Your task to perform on an android device: Open the Play Movies app and select the watchlist tab. Image 0: 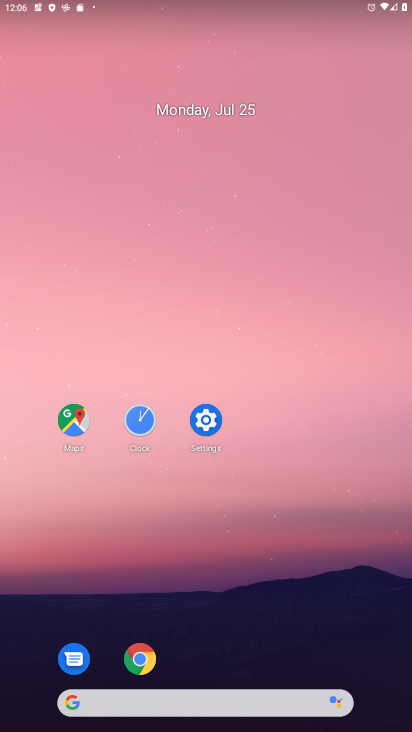
Step 0: drag from (383, 608) to (354, 38)
Your task to perform on an android device: Open the Play Movies app and select the watchlist tab. Image 1: 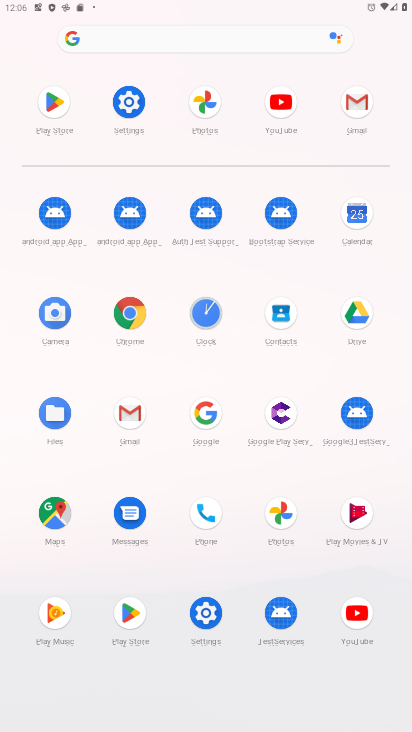
Step 1: click (356, 506)
Your task to perform on an android device: Open the Play Movies app and select the watchlist tab. Image 2: 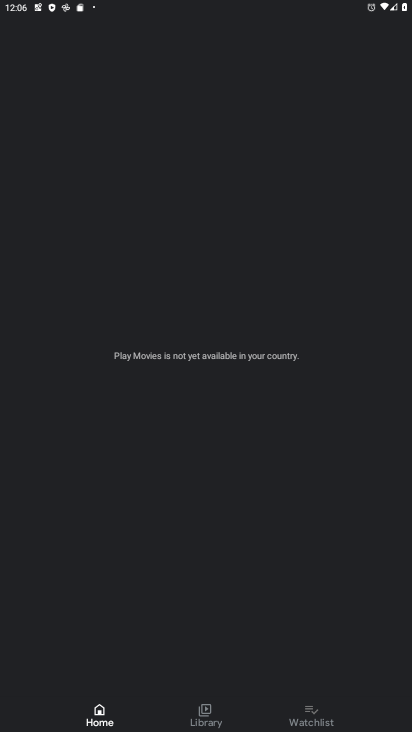
Step 2: click (295, 711)
Your task to perform on an android device: Open the Play Movies app and select the watchlist tab. Image 3: 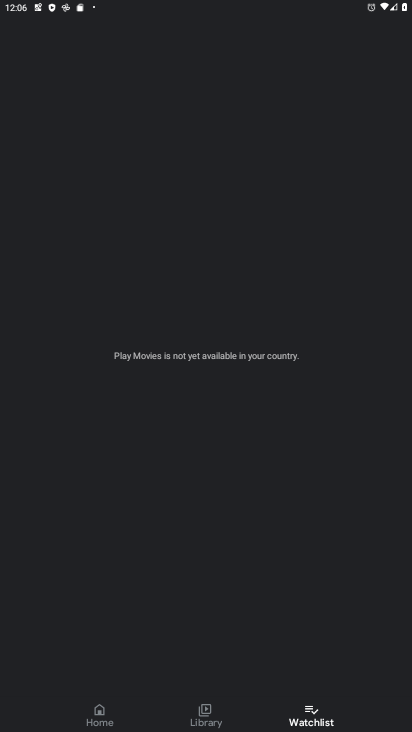
Step 3: task complete